Your task to perform on an android device: delete browsing data in the chrome app Image 0: 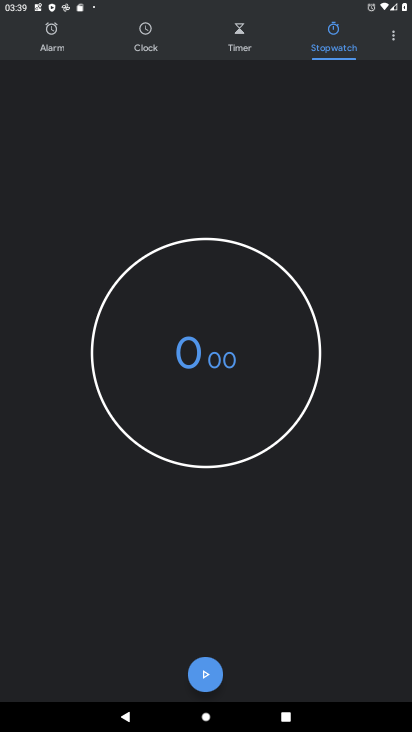
Step 0: press home button
Your task to perform on an android device: delete browsing data in the chrome app Image 1: 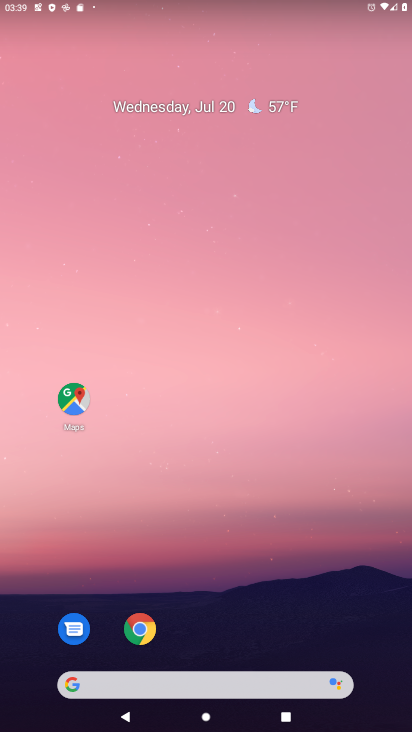
Step 1: click (139, 626)
Your task to perform on an android device: delete browsing data in the chrome app Image 2: 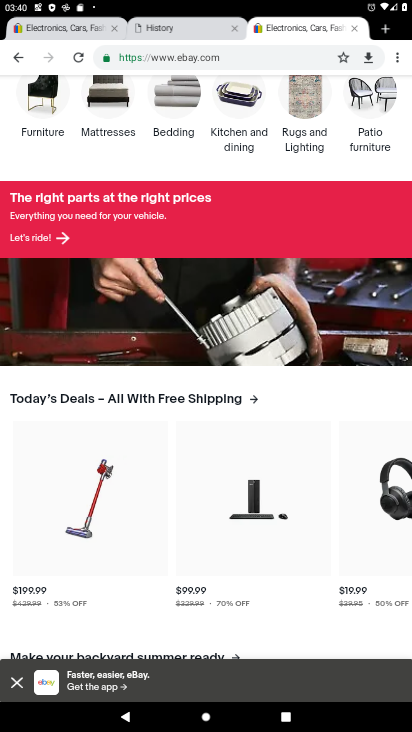
Step 2: drag from (332, 46) to (313, 248)
Your task to perform on an android device: delete browsing data in the chrome app Image 3: 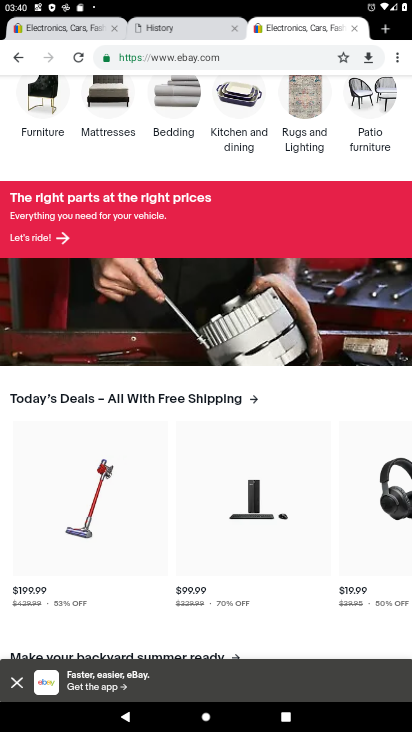
Step 3: click (399, 60)
Your task to perform on an android device: delete browsing data in the chrome app Image 4: 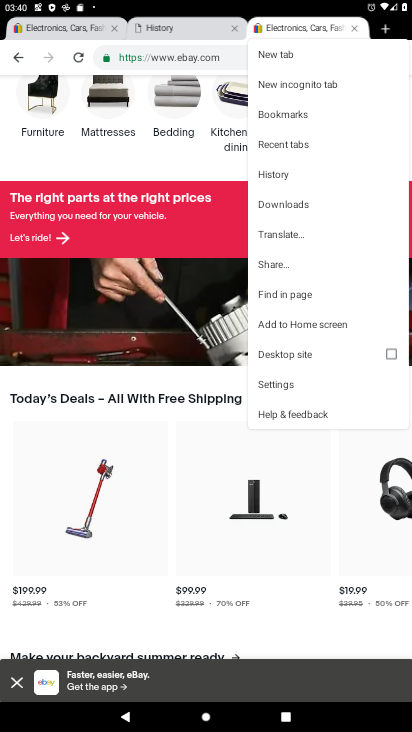
Step 4: click (267, 177)
Your task to perform on an android device: delete browsing data in the chrome app Image 5: 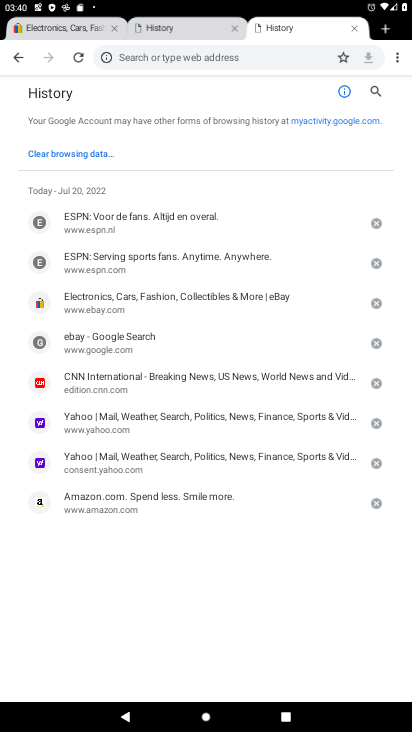
Step 5: click (75, 152)
Your task to perform on an android device: delete browsing data in the chrome app Image 6: 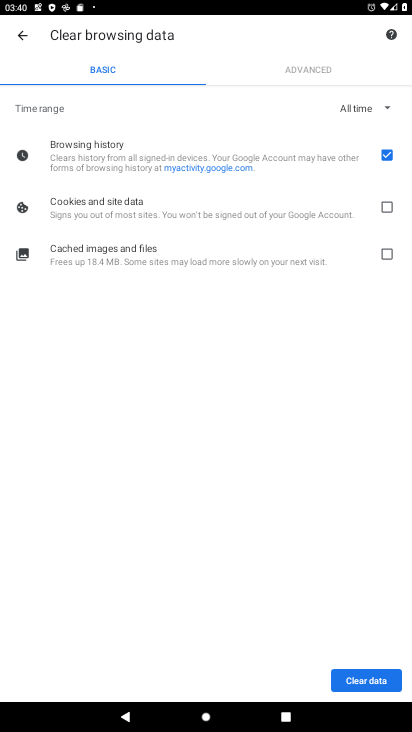
Step 6: click (371, 685)
Your task to perform on an android device: delete browsing data in the chrome app Image 7: 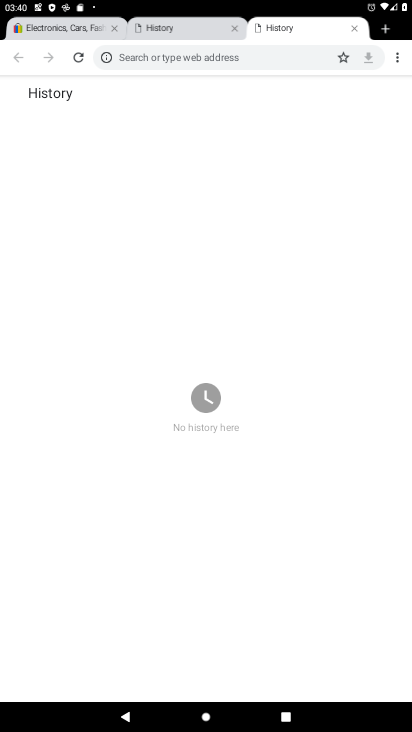
Step 7: task complete